Your task to perform on an android device: turn off picture-in-picture Image 0: 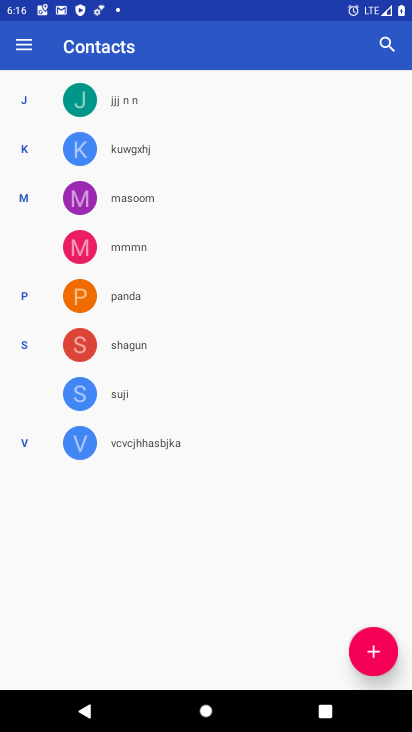
Step 0: press home button
Your task to perform on an android device: turn off picture-in-picture Image 1: 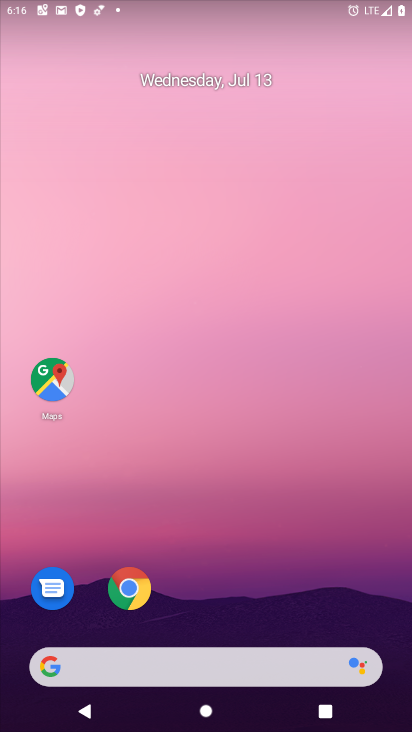
Step 1: drag from (165, 598) to (221, 71)
Your task to perform on an android device: turn off picture-in-picture Image 2: 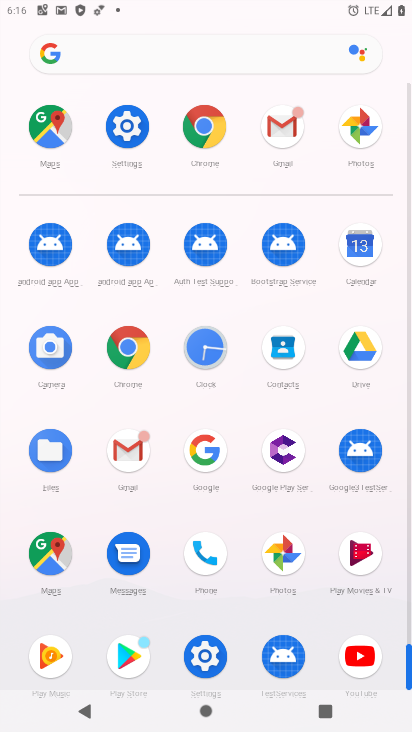
Step 2: click (127, 123)
Your task to perform on an android device: turn off picture-in-picture Image 3: 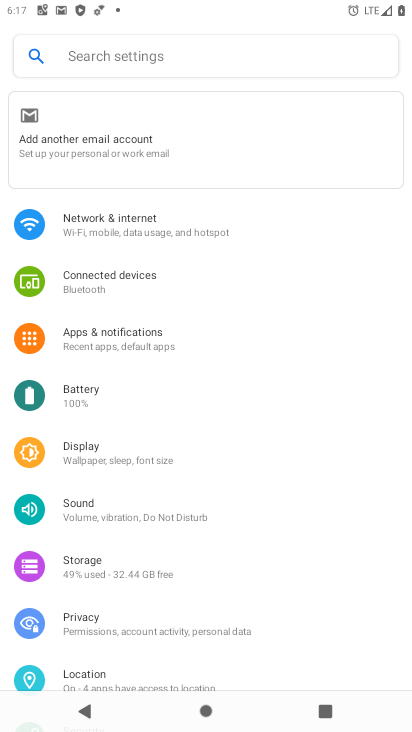
Step 3: click (112, 344)
Your task to perform on an android device: turn off picture-in-picture Image 4: 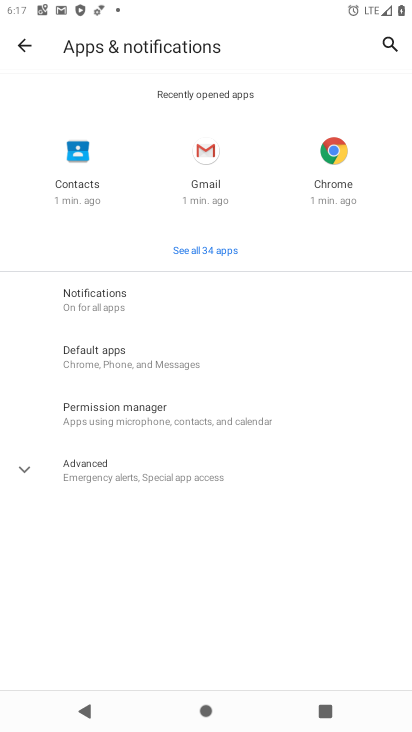
Step 4: click (102, 470)
Your task to perform on an android device: turn off picture-in-picture Image 5: 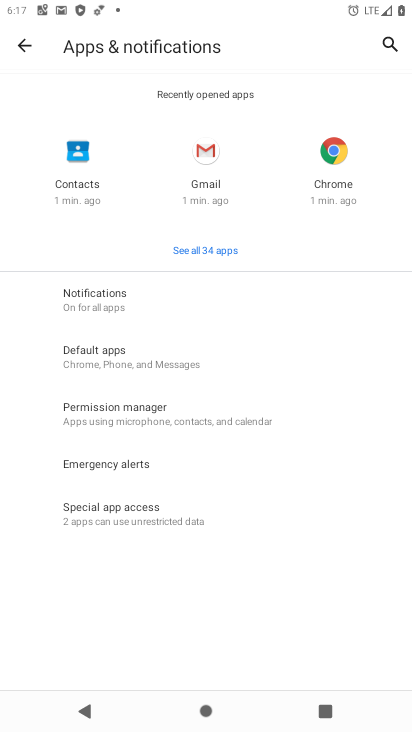
Step 5: click (85, 510)
Your task to perform on an android device: turn off picture-in-picture Image 6: 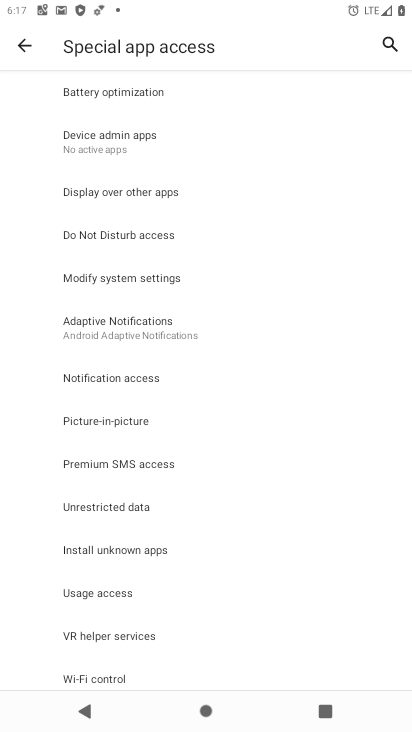
Step 6: click (128, 424)
Your task to perform on an android device: turn off picture-in-picture Image 7: 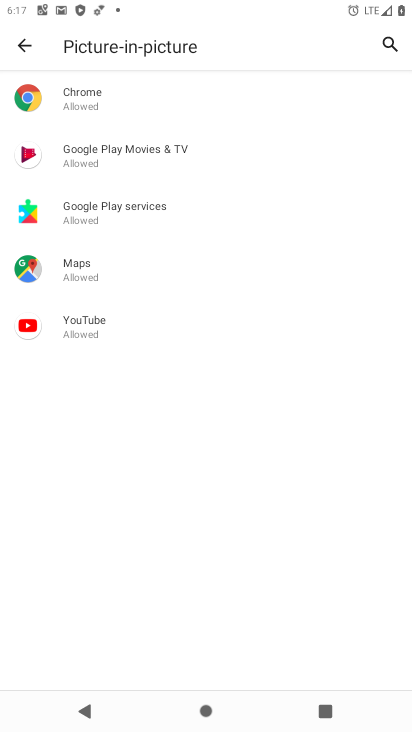
Step 7: click (111, 85)
Your task to perform on an android device: turn off picture-in-picture Image 8: 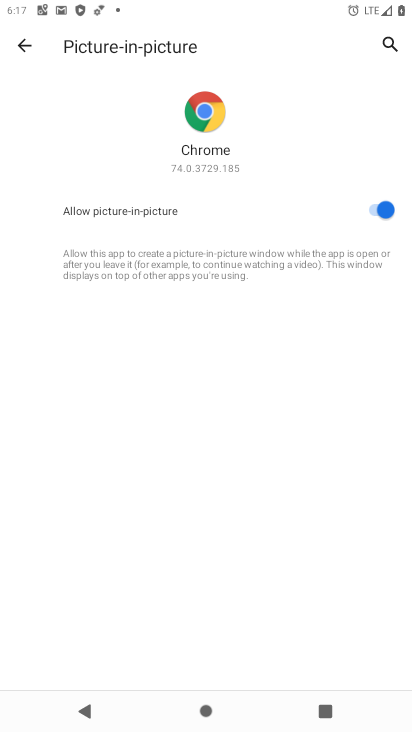
Step 8: click (375, 208)
Your task to perform on an android device: turn off picture-in-picture Image 9: 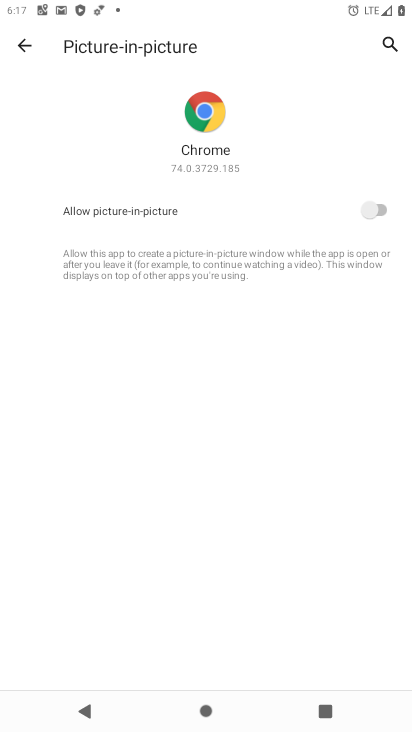
Step 9: task complete